Your task to perform on an android device: find photos in the google photos app Image 0: 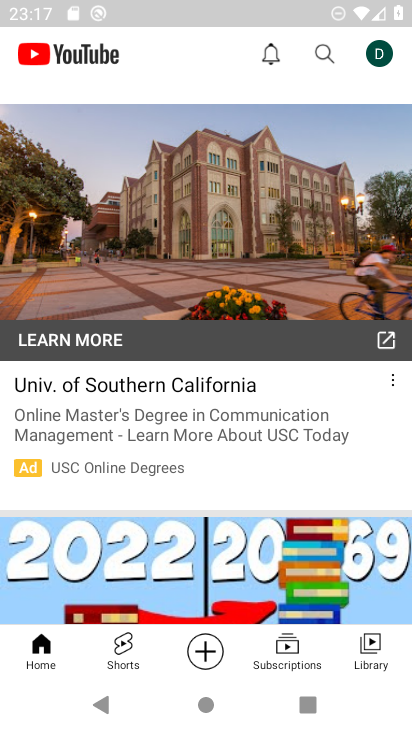
Step 0: press home button
Your task to perform on an android device: find photos in the google photos app Image 1: 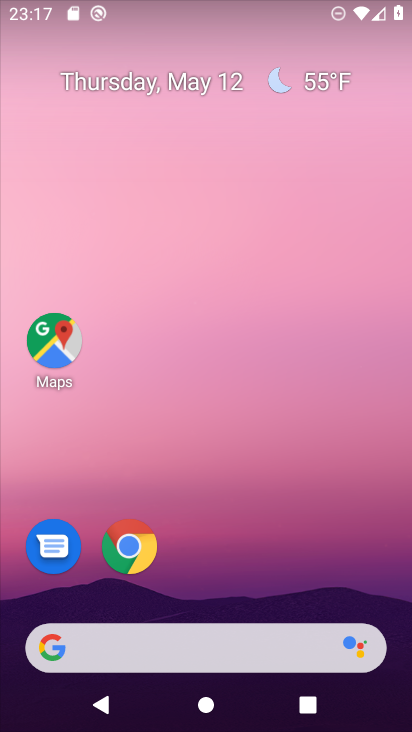
Step 1: drag from (197, 590) to (218, 162)
Your task to perform on an android device: find photos in the google photos app Image 2: 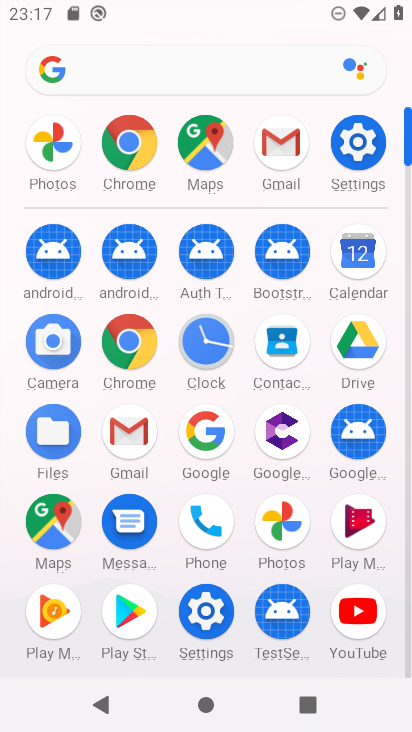
Step 2: click (41, 155)
Your task to perform on an android device: find photos in the google photos app Image 3: 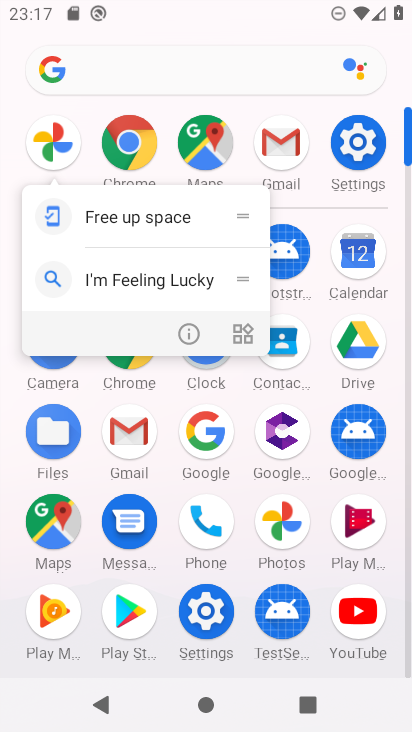
Step 3: click (52, 139)
Your task to perform on an android device: find photos in the google photos app Image 4: 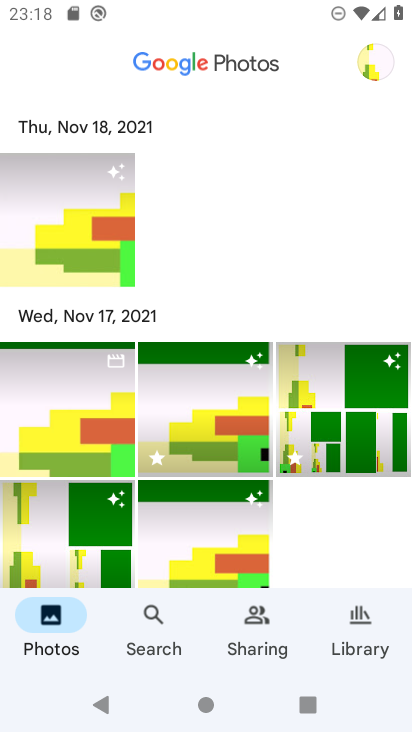
Step 4: task complete